Your task to perform on an android device: Open sound settings Image 0: 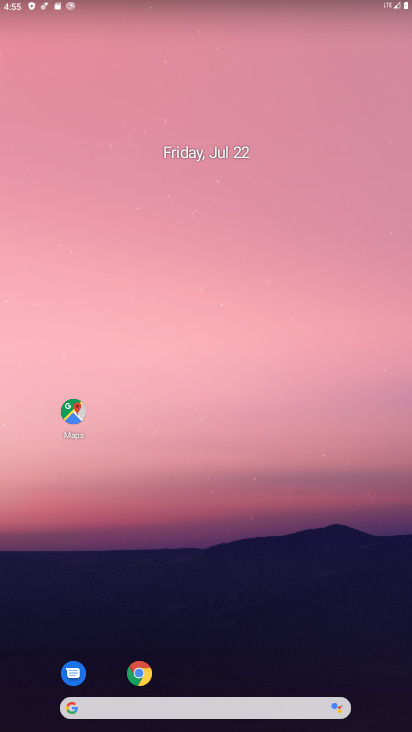
Step 0: press home button
Your task to perform on an android device: Open sound settings Image 1: 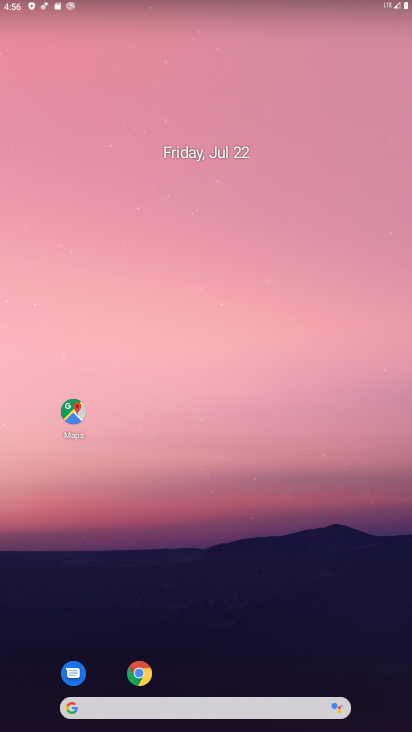
Step 1: drag from (210, 675) to (256, 10)
Your task to perform on an android device: Open sound settings Image 2: 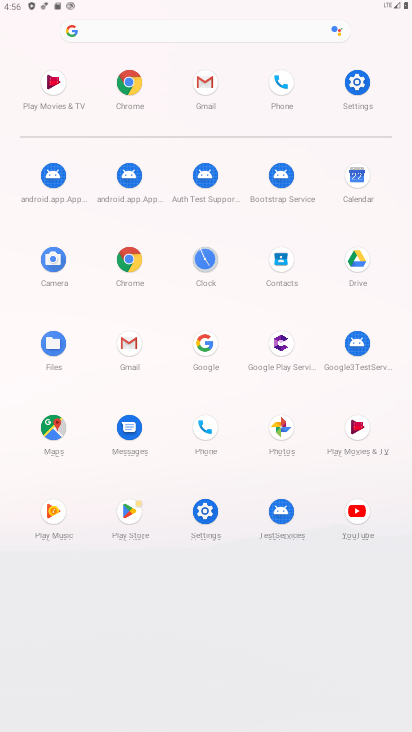
Step 2: click (363, 88)
Your task to perform on an android device: Open sound settings Image 3: 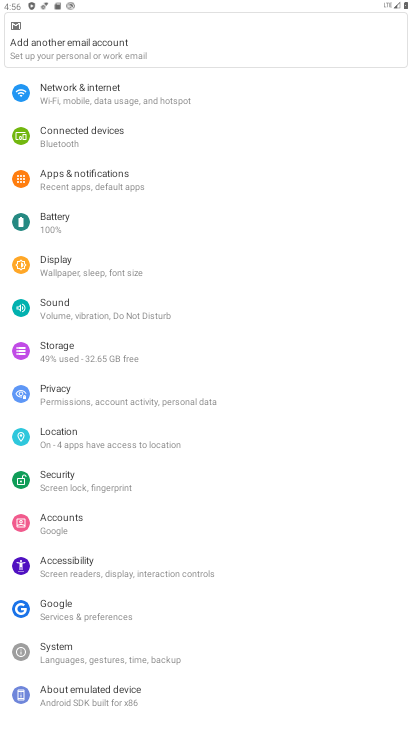
Step 3: click (45, 308)
Your task to perform on an android device: Open sound settings Image 4: 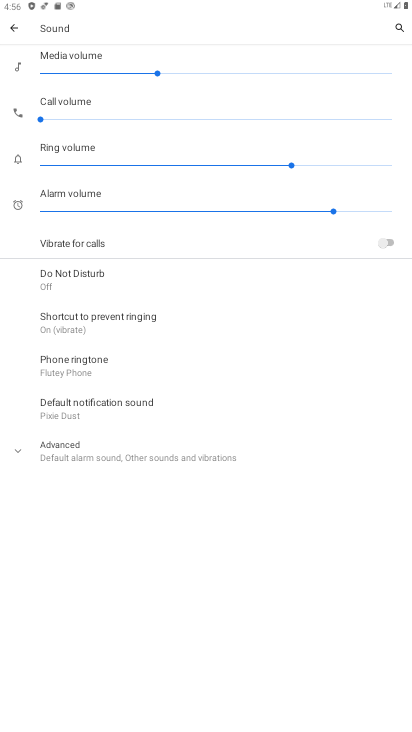
Step 4: task complete